Your task to perform on an android device: add a contact in the contacts app Image 0: 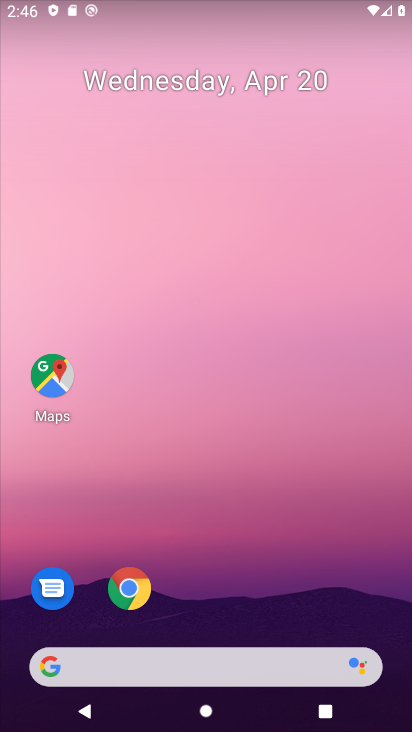
Step 0: drag from (206, 610) to (216, 136)
Your task to perform on an android device: add a contact in the contacts app Image 1: 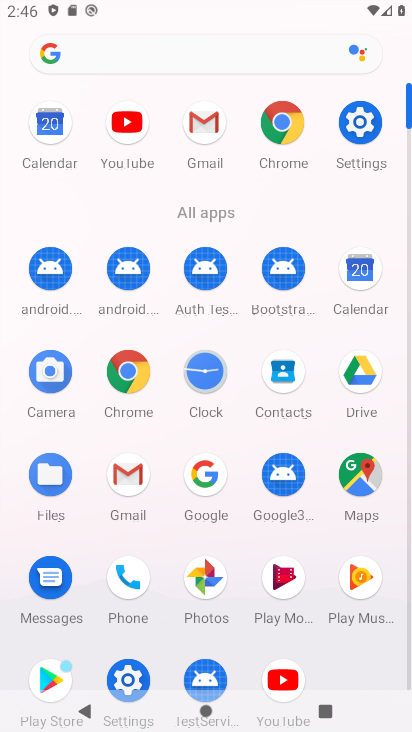
Step 1: click (281, 375)
Your task to perform on an android device: add a contact in the contacts app Image 2: 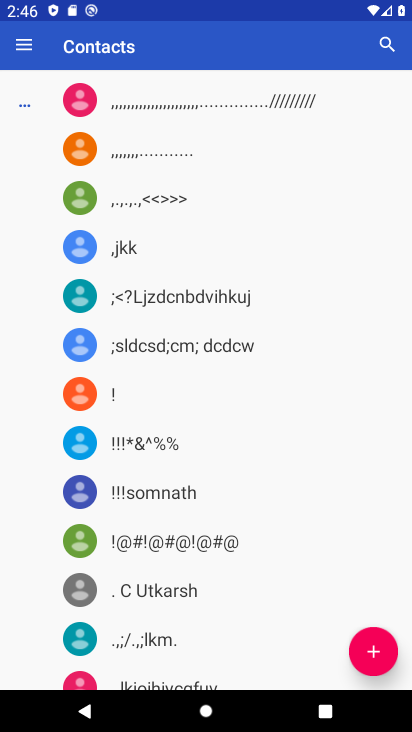
Step 2: click (376, 643)
Your task to perform on an android device: add a contact in the contacts app Image 3: 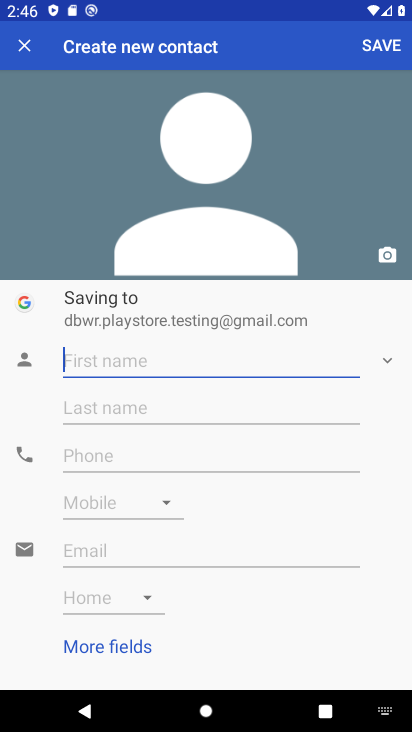
Step 3: type "gdgfd"
Your task to perform on an android device: add a contact in the contacts app Image 4: 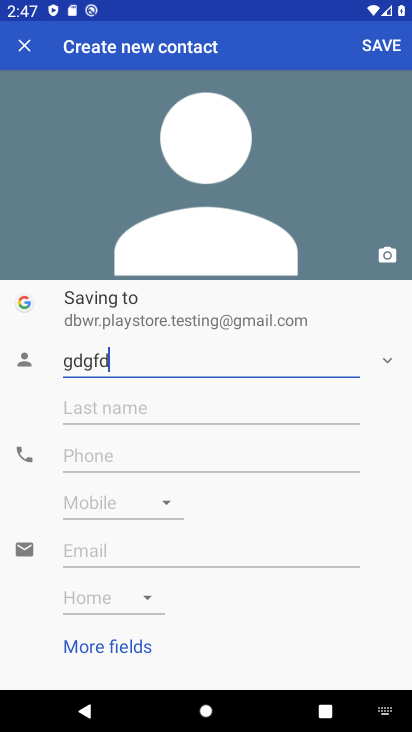
Step 4: type ""
Your task to perform on an android device: add a contact in the contacts app Image 5: 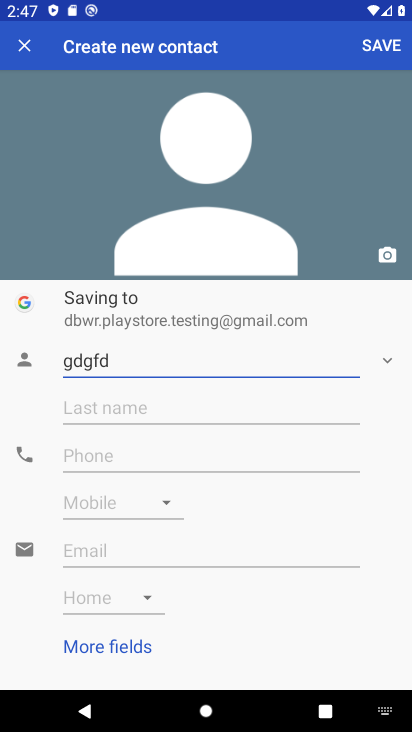
Step 5: click (218, 400)
Your task to perform on an android device: add a contact in the contacts app Image 6: 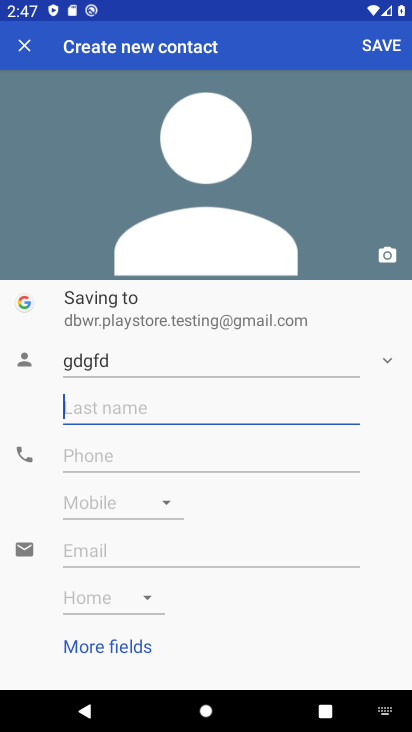
Step 6: type "ffhgfh"
Your task to perform on an android device: add a contact in the contacts app Image 7: 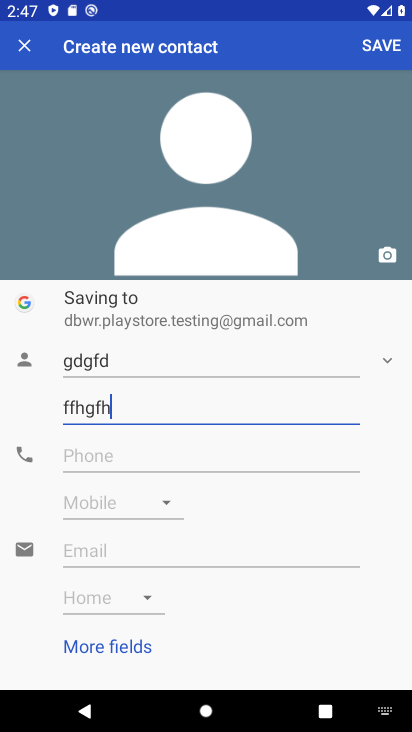
Step 7: type ""
Your task to perform on an android device: add a contact in the contacts app Image 8: 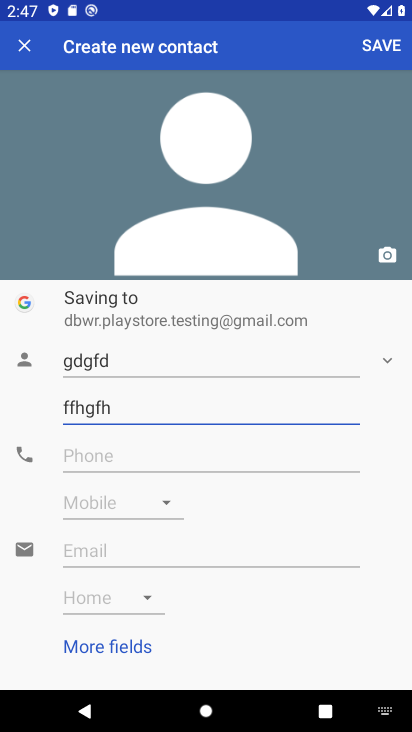
Step 8: click (118, 461)
Your task to perform on an android device: add a contact in the contacts app Image 9: 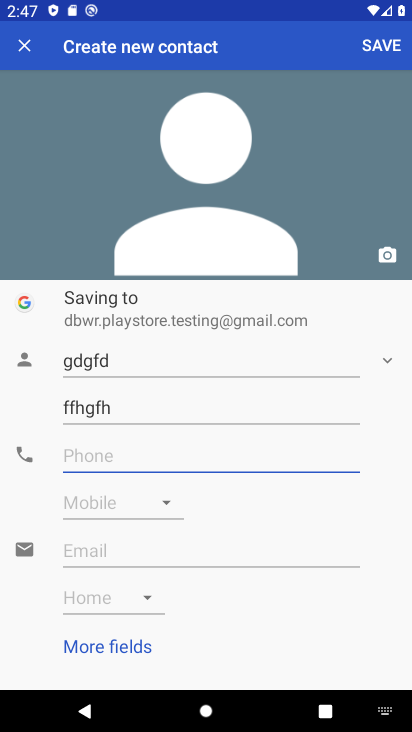
Step 9: type "765765765"
Your task to perform on an android device: add a contact in the contacts app Image 10: 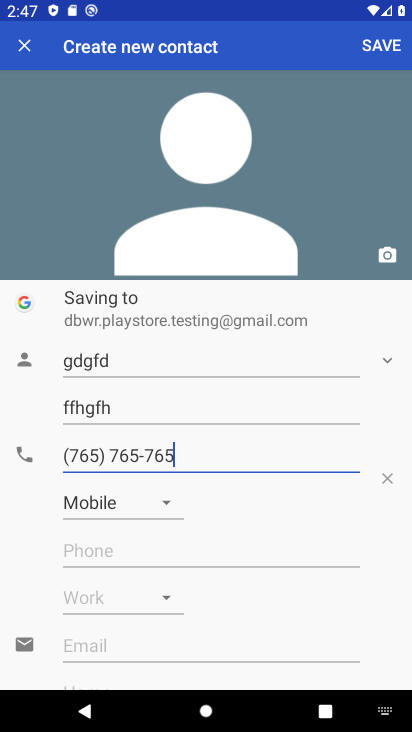
Step 10: click (373, 45)
Your task to perform on an android device: add a contact in the contacts app Image 11: 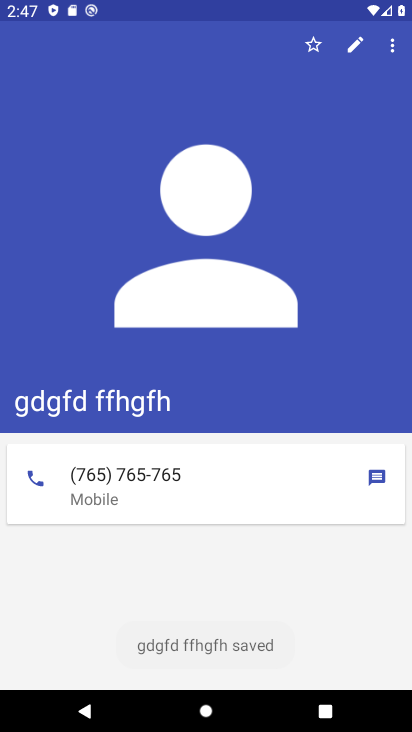
Step 11: task complete